Your task to perform on an android device: Add "asus zenbook" to the cart on walmart, then select checkout. Image 0: 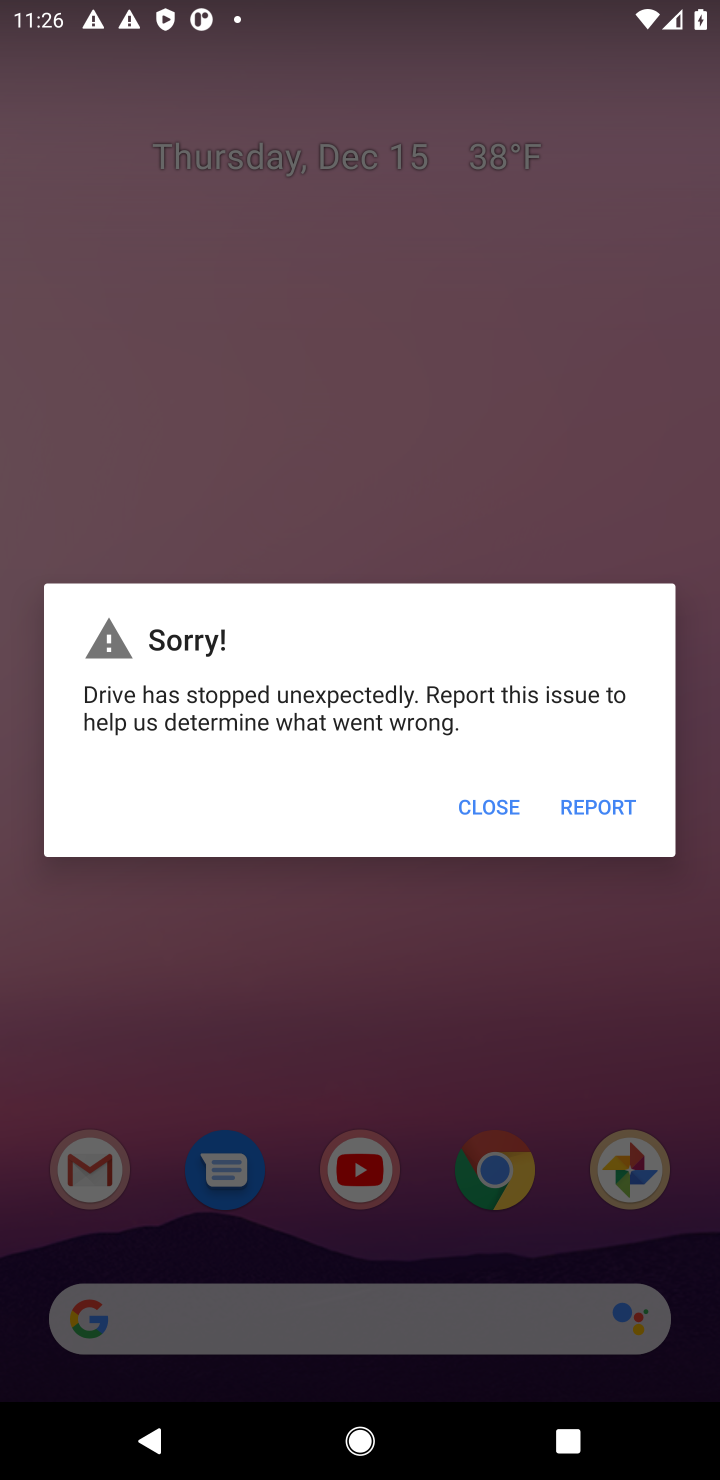
Step 0: press home button
Your task to perform on an android device: Add "asus zenbook" to the cart on walmart, then select checkout. Image 1: 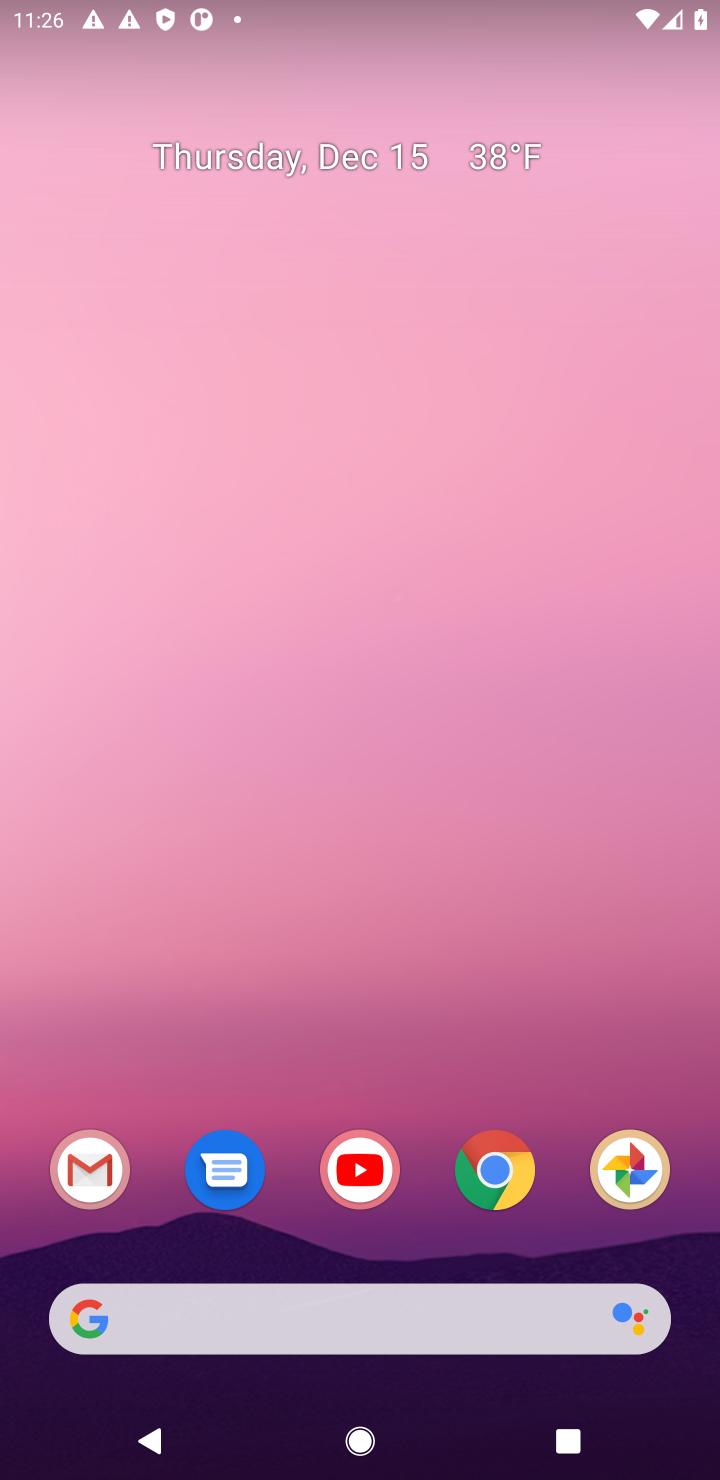
Step 1: click (489, 1180)
Your task to perform on an android device: Add "asus zenbook" to the cart on walmart, then select checkout. Image 2: 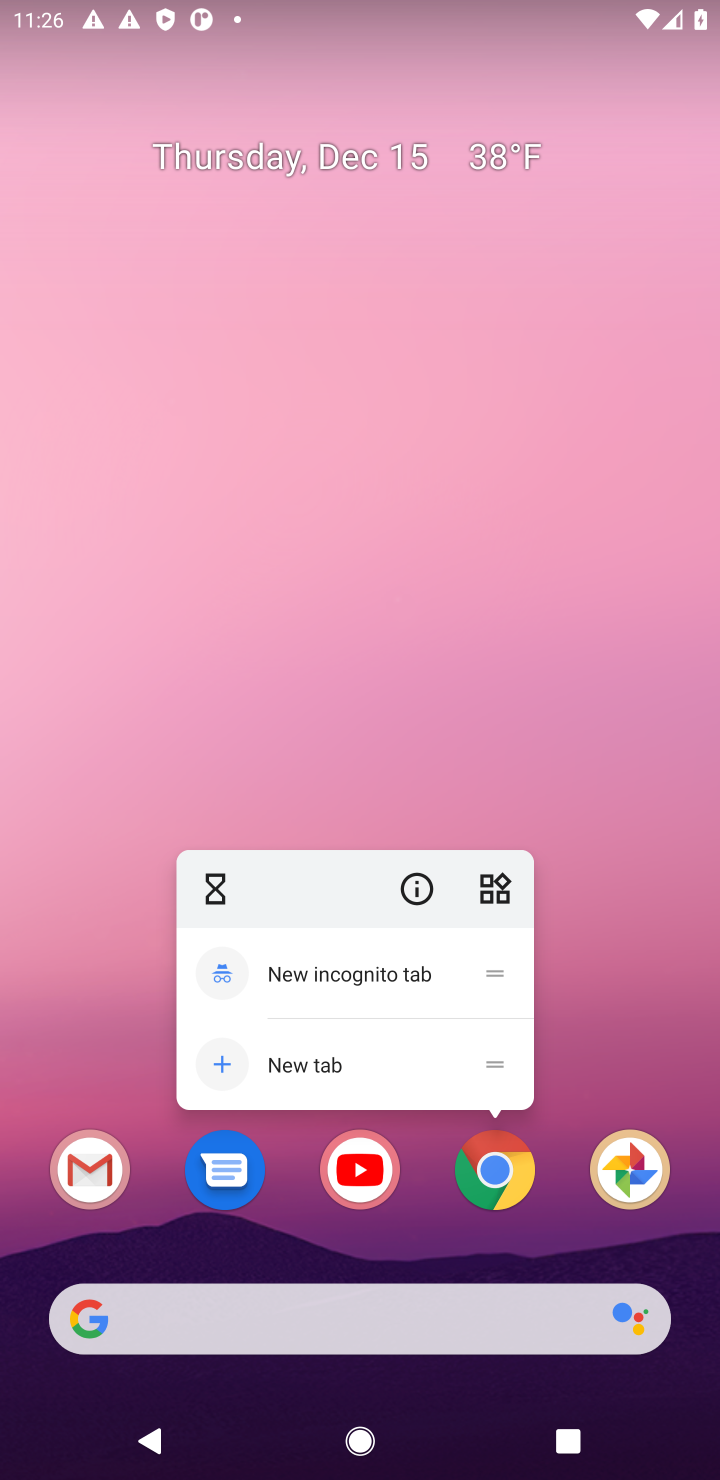
Step 2: click (498, 1177)
Your task to perform on an android device: Add "asus zenbook" to the cart on walmart, then select checkout. Image 3: 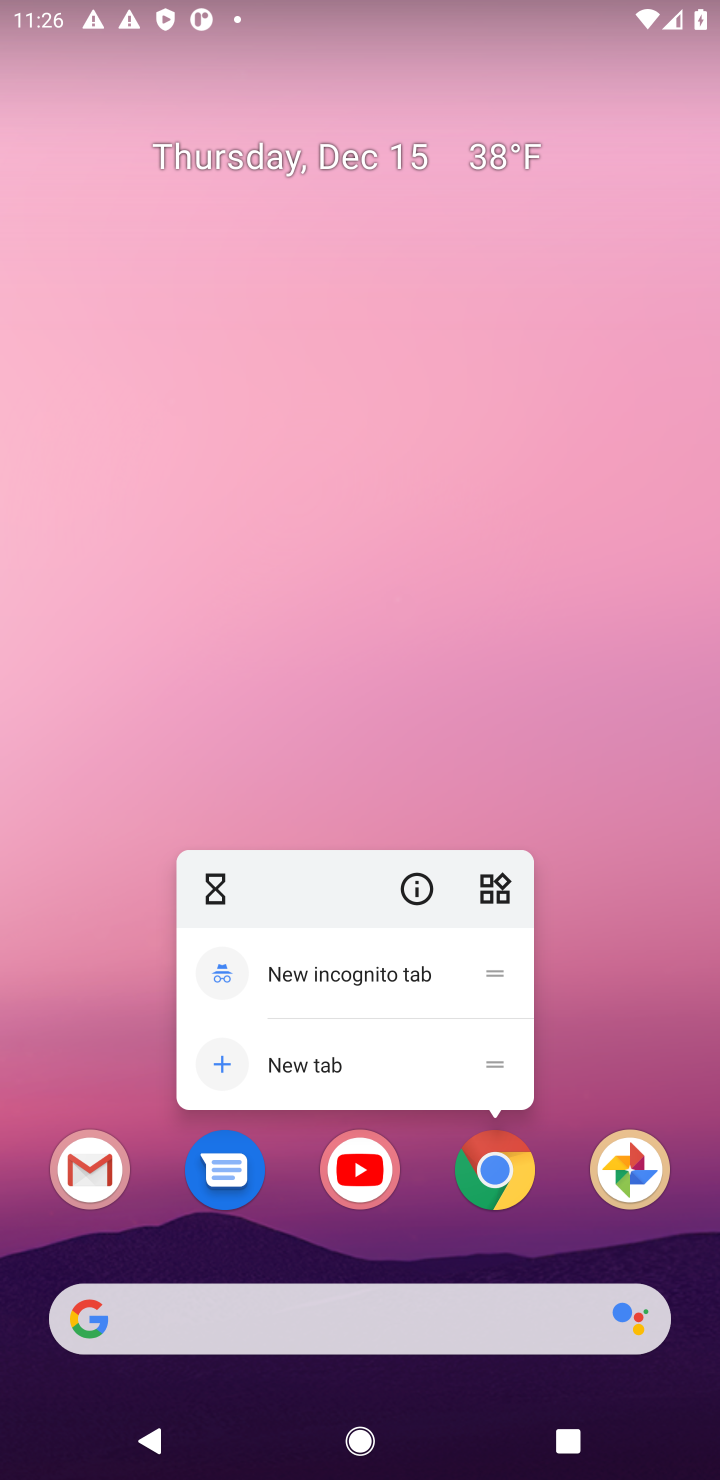
Step 3: click (498, 1177)
Your task to perform on an android device: Add "asus zenbook" to the cart on walmart, then select checkout. Image 4: 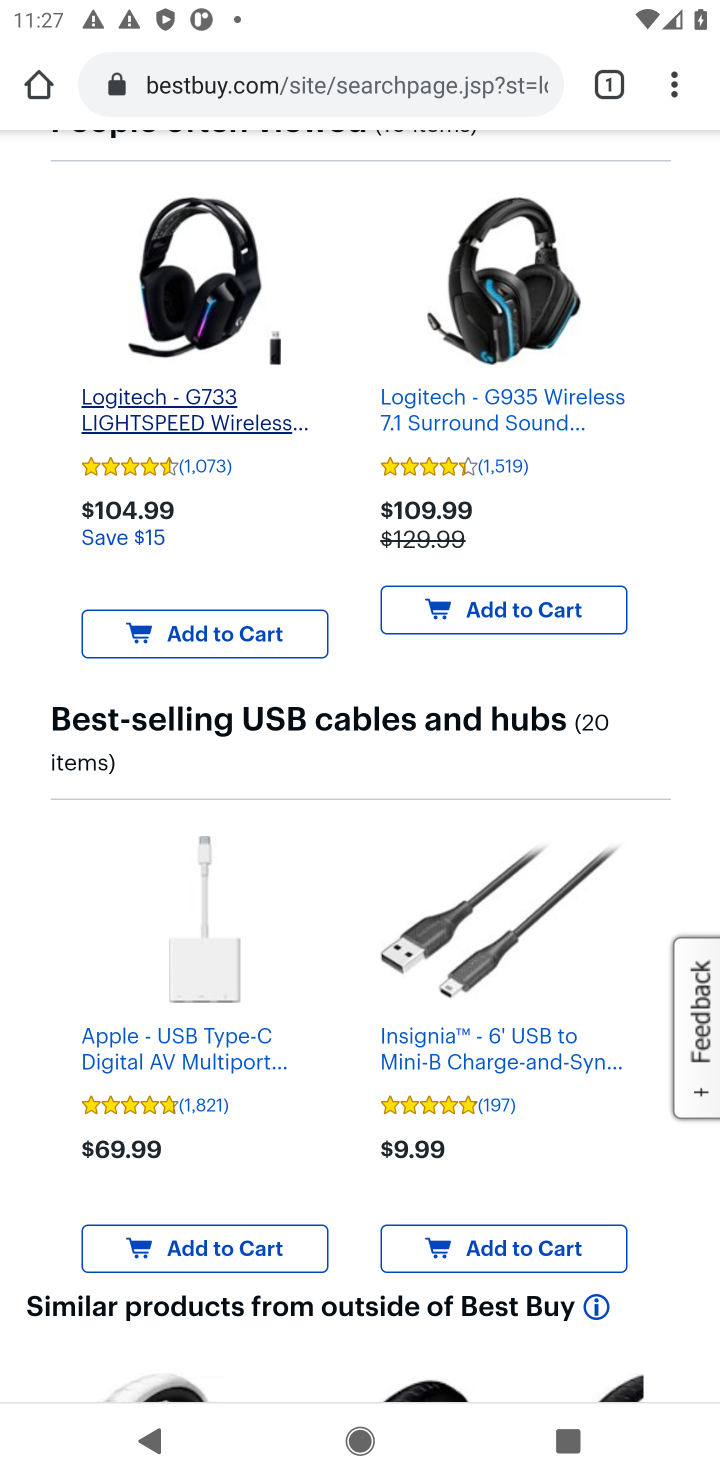
Step 4: click (249, 89)
Your task to perform on an android device: Add "asus zenbook" to the cart on walmart, then select checkout. Image 5: 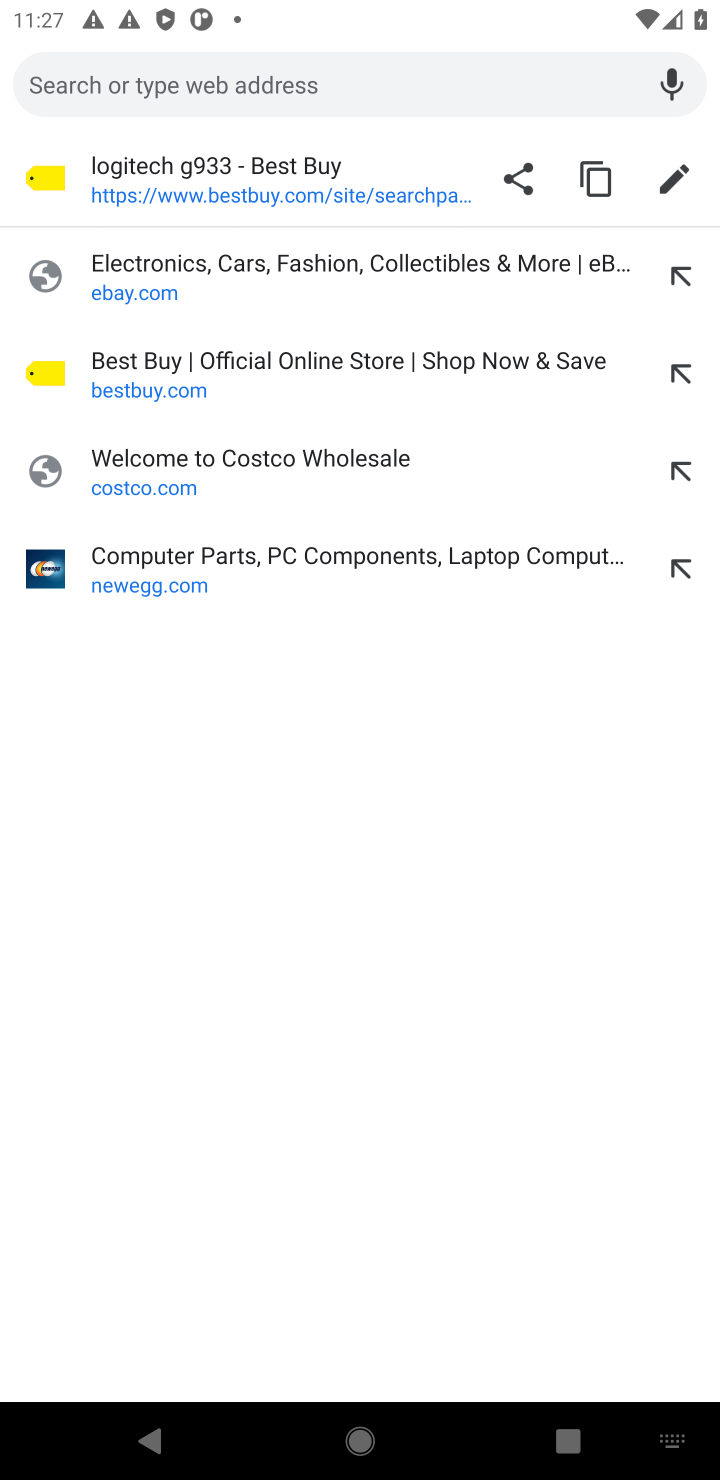
Step 5: type "walmart.com"
Your task to perform on an android device: Add "asus zenbook" to the cart on walmart, then select checkout. Image 6: 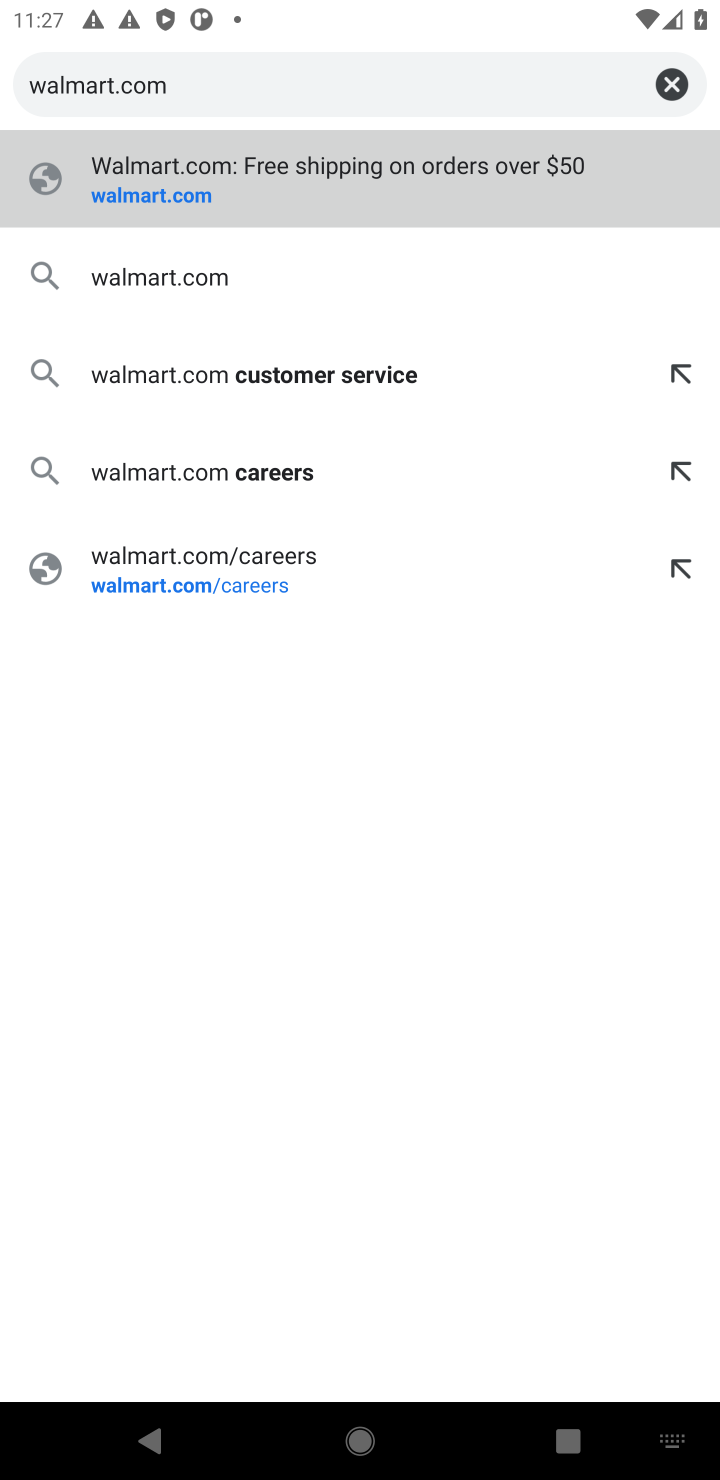
Step 6: click (123, 205)
Your task to perform on an android device: Add "asus zenbook" to the cart on walmart, then select checkout. Image 7: 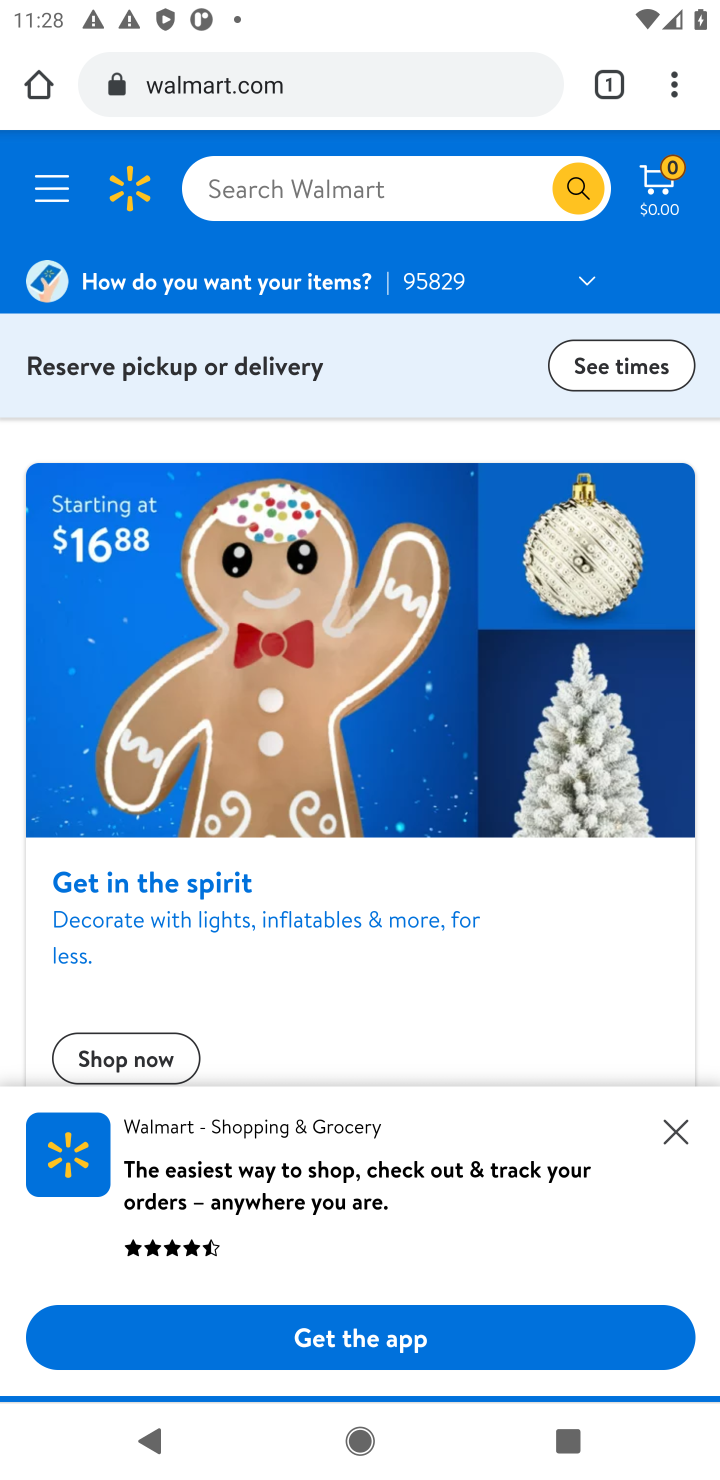
Step 7: click (283, 171)
Your task to perform on an android device: Add "asus zenbook" to the cart on walmart, then select checkout. Image 8: 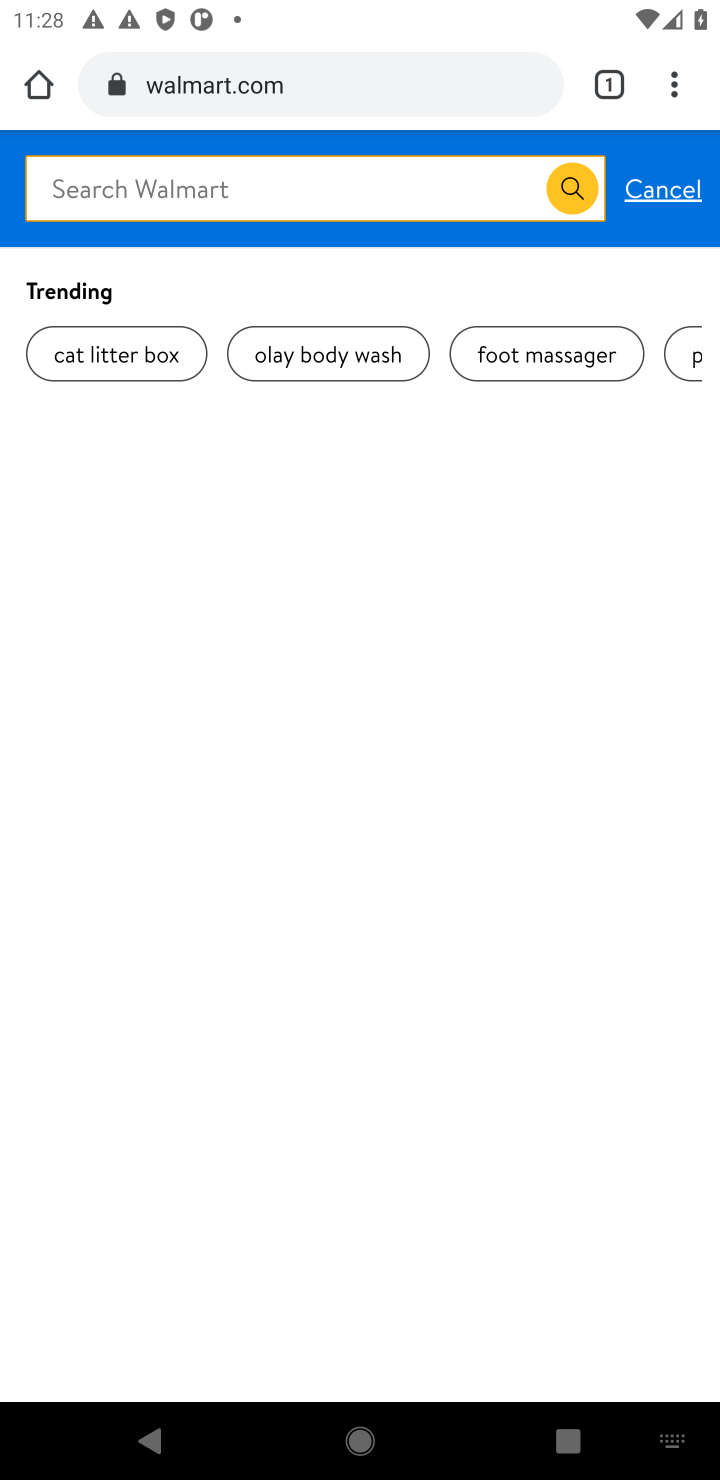
Step 8: type "asus zenbook"
Your task to perform on an android device: Add "asus zenbook" to the cart on walmart, then select checkout. Image 9: 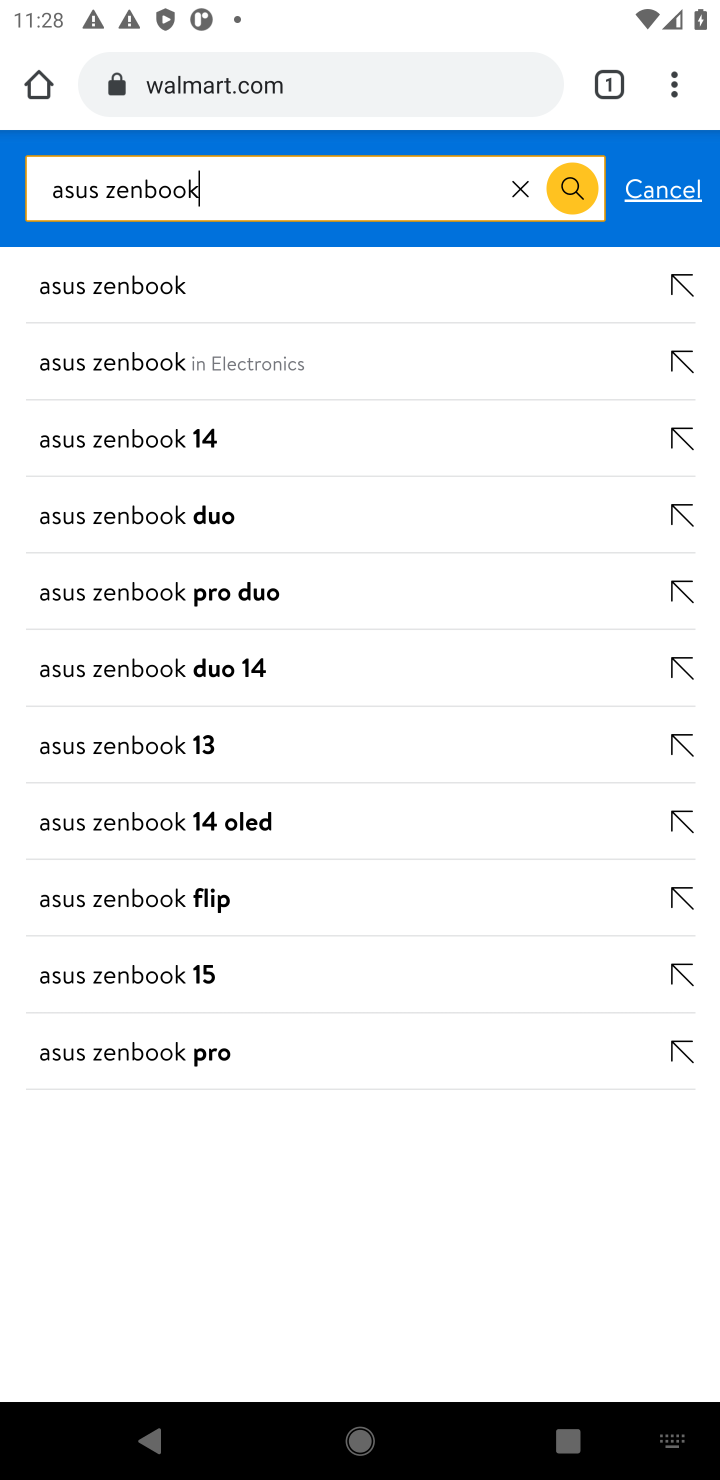
Step 9: click (86, 291)
Your task to perform on an android device: Add "asus zenbook" to the cart on walmart, then select checkout. Image 10: 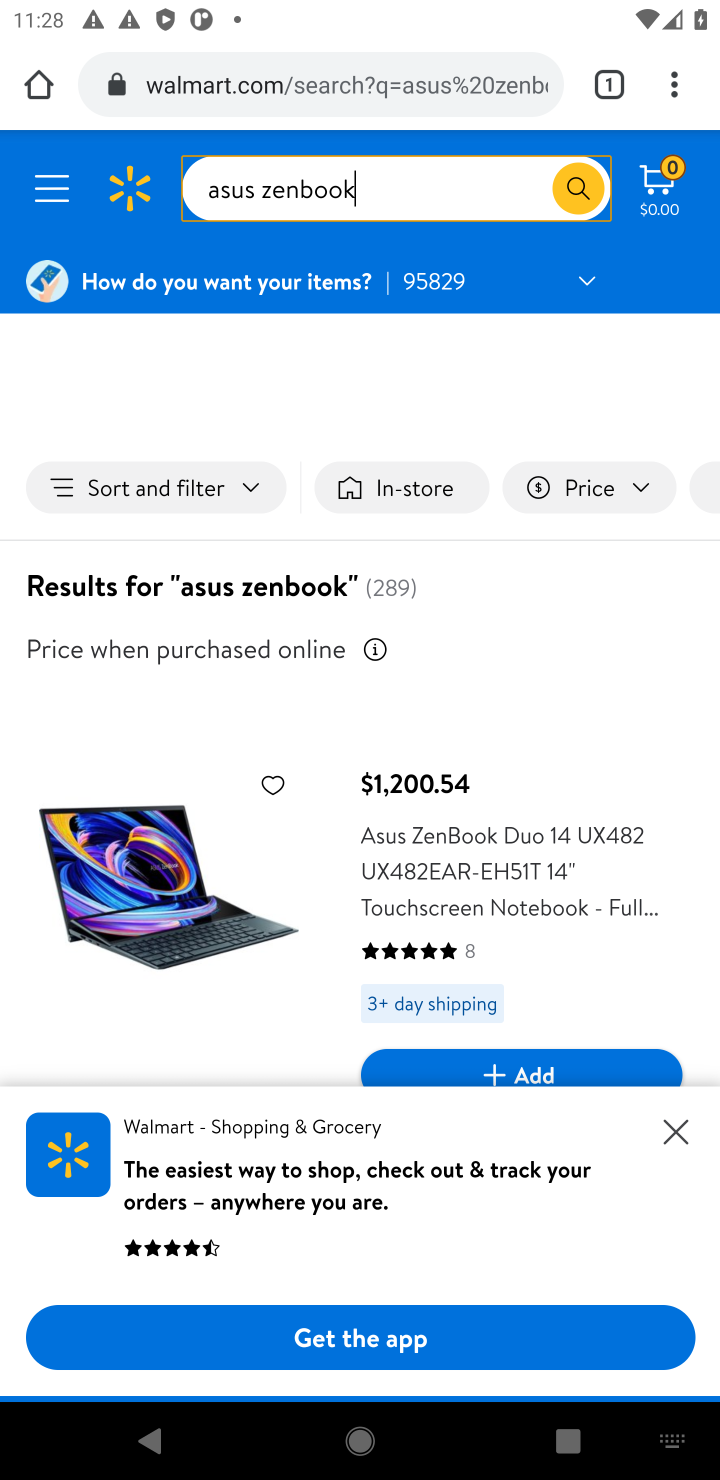
Step 10: drag from (474, 918) to (495, 731)
Your task to perform on an android device: Add "asus zenbook" to the cart on walmart, then select checkout. Image 11: 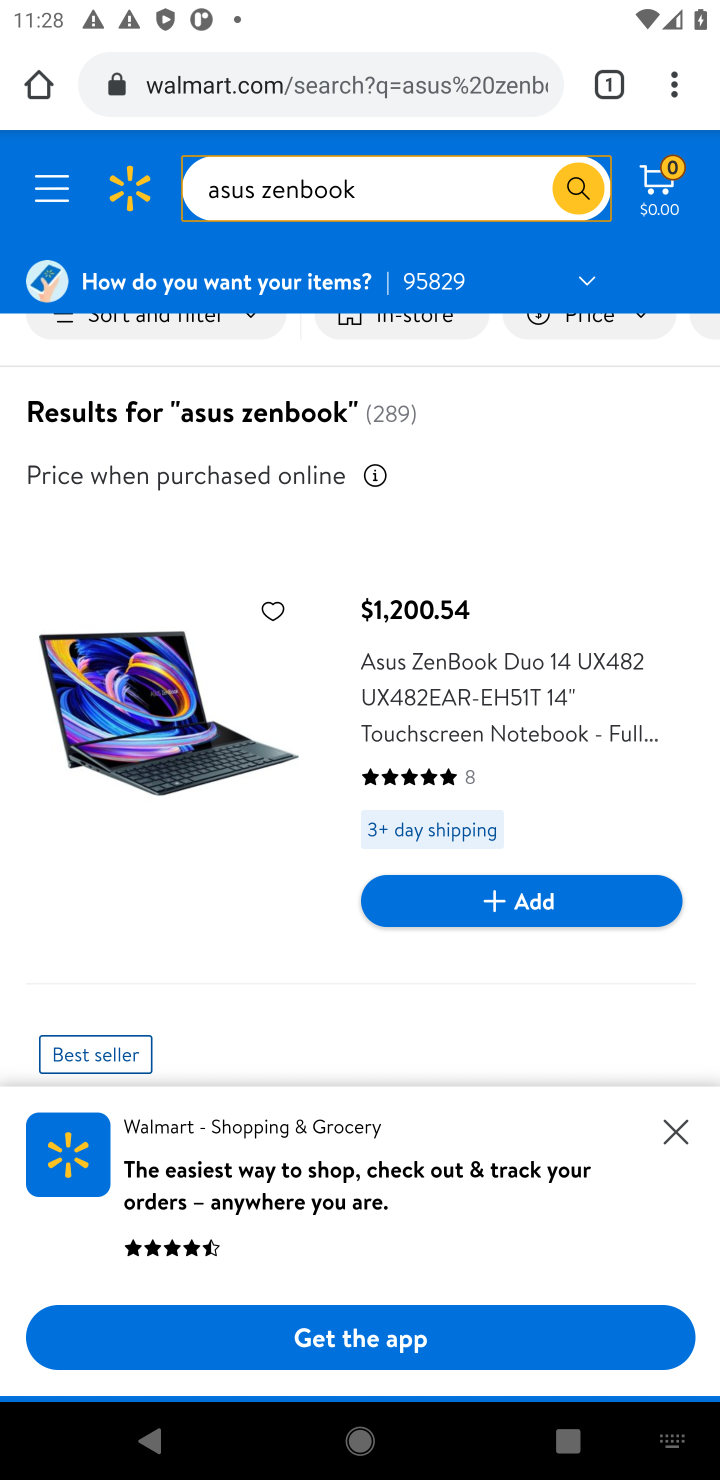
Step 11: click (513, 915)
Your task to perform on an android device: Add "asus zenbook" to the cart on walmart, then select checkout. Image 12: 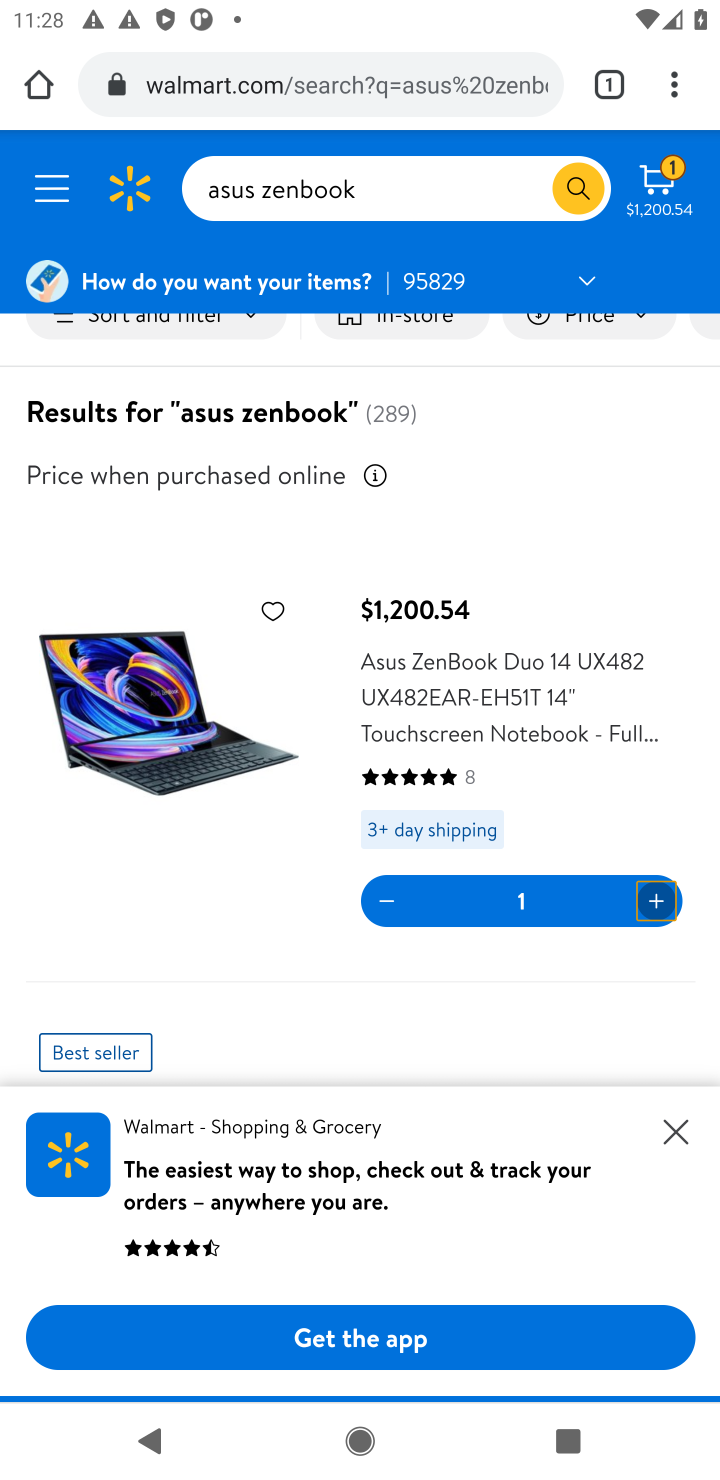
Step 12: click (656, 202)
Your task to perform on an android device: Add "asus zenbook" to the cart on walmart, then select checkout. Image 13: 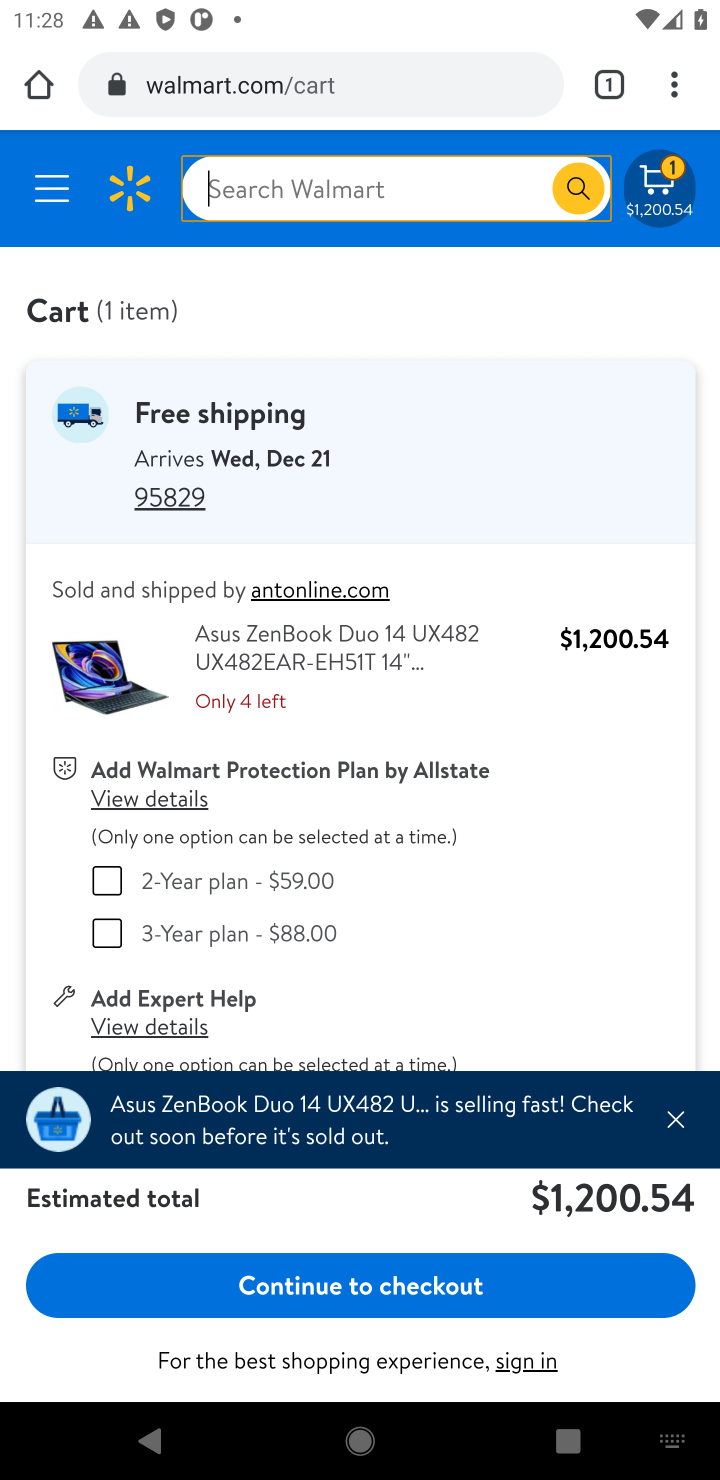
Step 13: click (312, 1300)
Your task to perform on an android device: Add "asus zenbook" to the cart on walmart, then select checkout. Image 14: 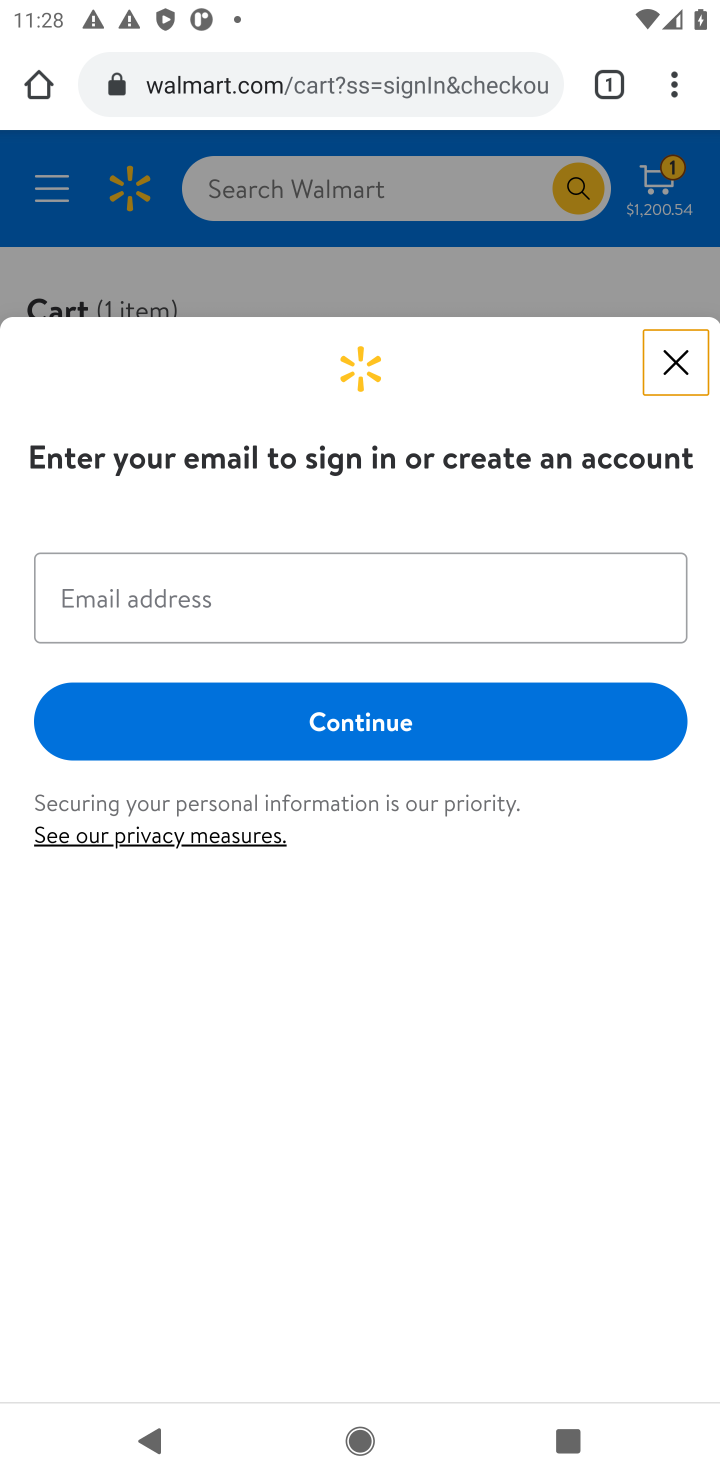
Step 14: task complete